Your task to perform on an android device: remove spam from my inbox in the gmail app Image 0: 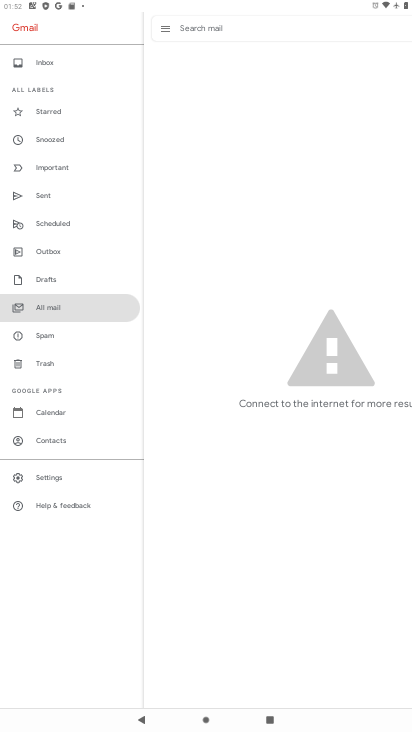
Step 0: click (49, 340)
Your task to perform on an android device: remove spam from my inbox in the gmail app Image 1: 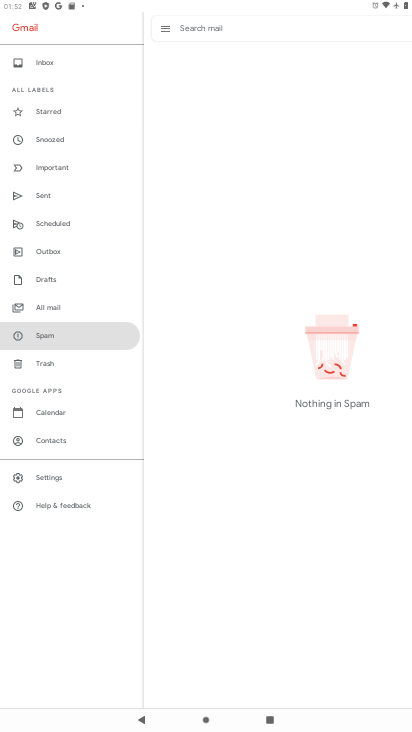
Step 1: task complete